Your task to perform on an android device: toggle improve location accuracy Image 0: 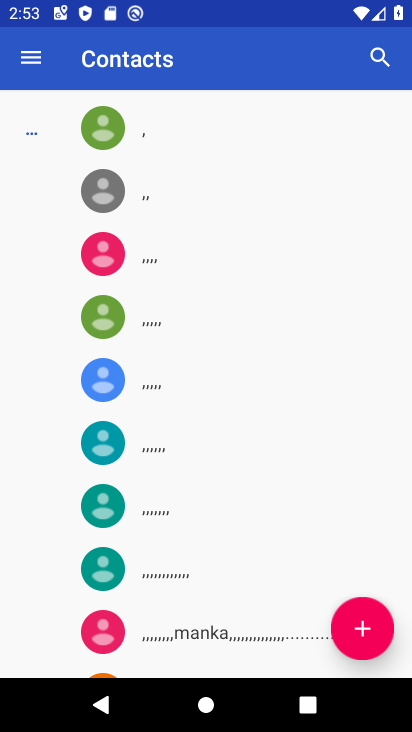
Step 0: press home button
Your task to perform on an android device: toggle improve location accuracy Image 1: 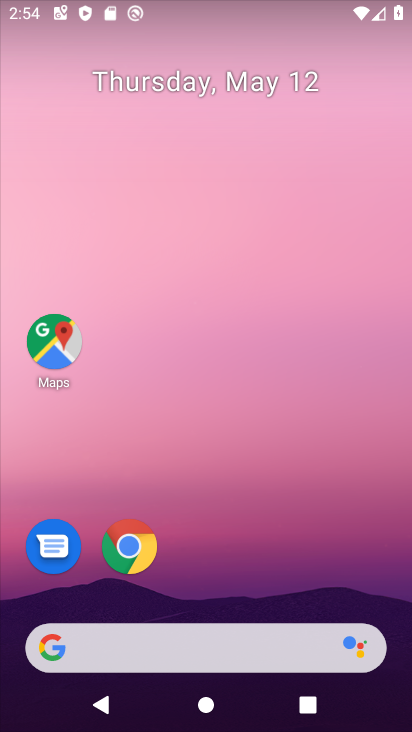
Step 1: drag from (234, 502) to (251, 222)
Your task to perform on an android device: toggle improve location accuracy Image 2: 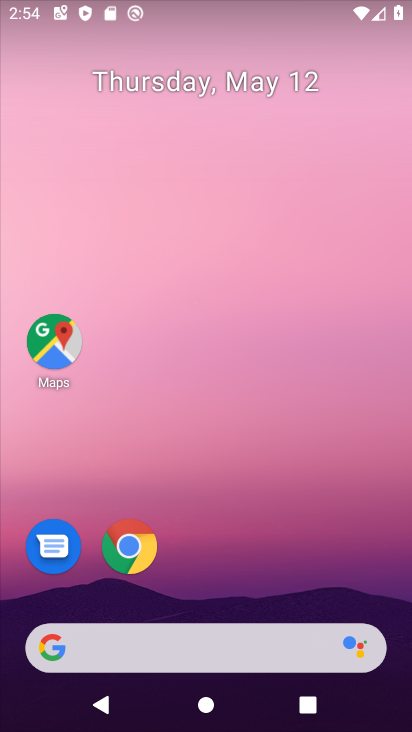
Step 2: drag from (250, 507) to (240, 275)
Your task to perform on an android device: toggle improve location accuracy Image 3: 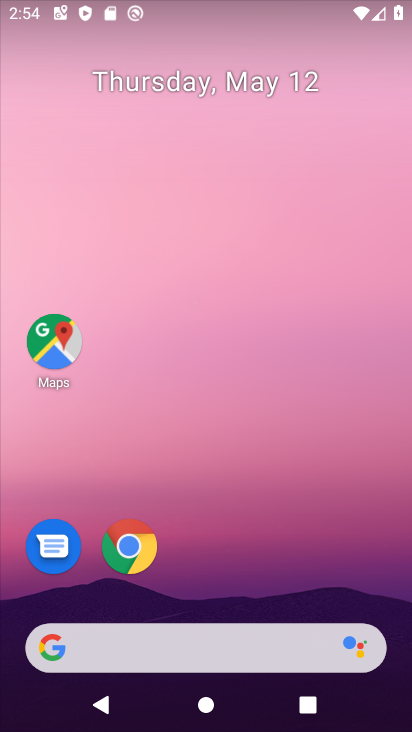
Step 3: drag from (237, 343) to (238, 243)
Your task to perform on an android device: toggle improve location accuracy Image 4: 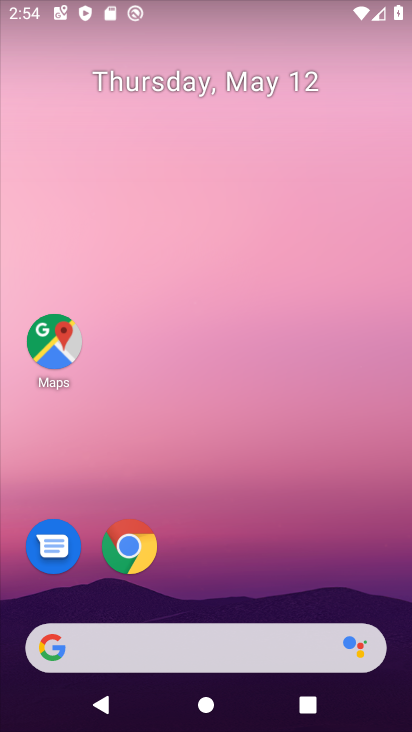
Step 4: drag from (218, 552) to (227, 246)
Your task to perform on an android device: toggle improve location accuracy Image 5: 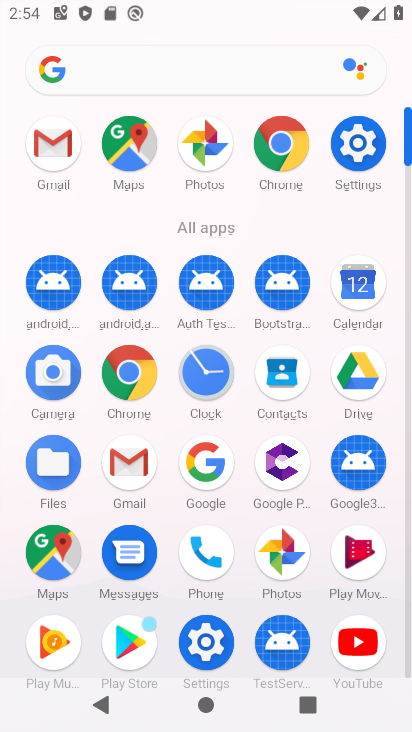
Step 5: click (348, 138)
Your task to perform on an android device: toggle improve location accuracy Image 6: 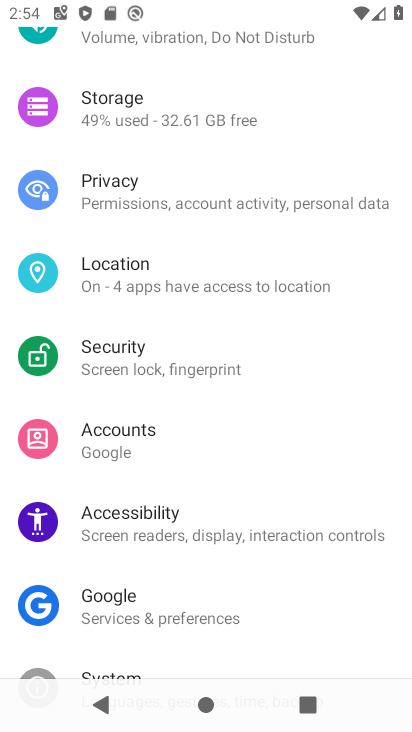
Step 6: click (168, 267)
Your task to perform on an android device: toggle improve location accuracy Image 7: 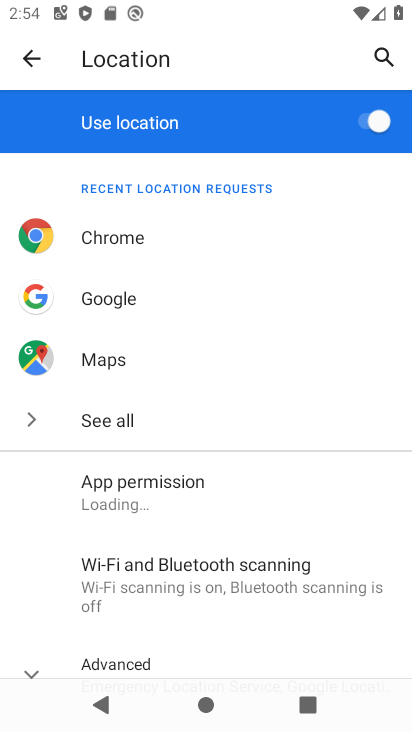
Step 7: drag from (285, 620) to (313, 287)
Your task to perform on an android device: toggle improve location accuracy Image 8: 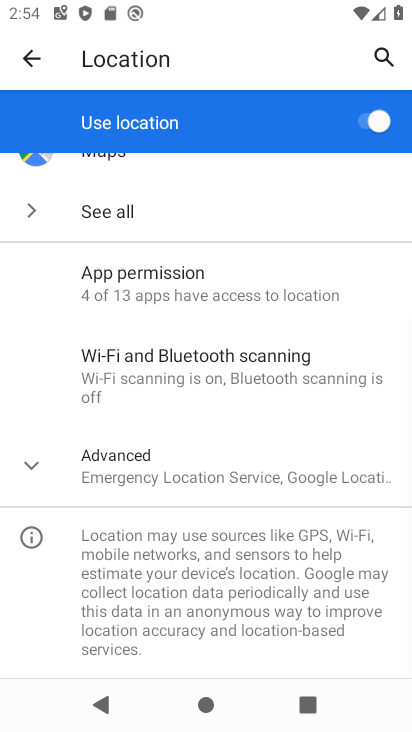
Step 8: click (140, 476)
Your task to perform on an android device: toggle improve location accuracy Image 9: 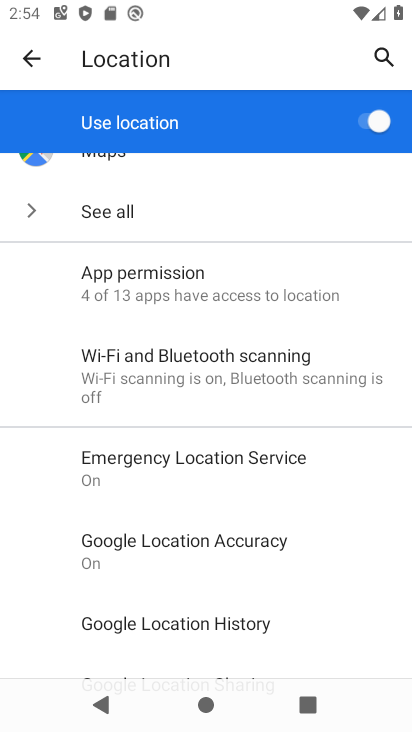
Step 9: click (185, 543)
Your task to perform on an android device: toggle improve location accuracy Image 10: 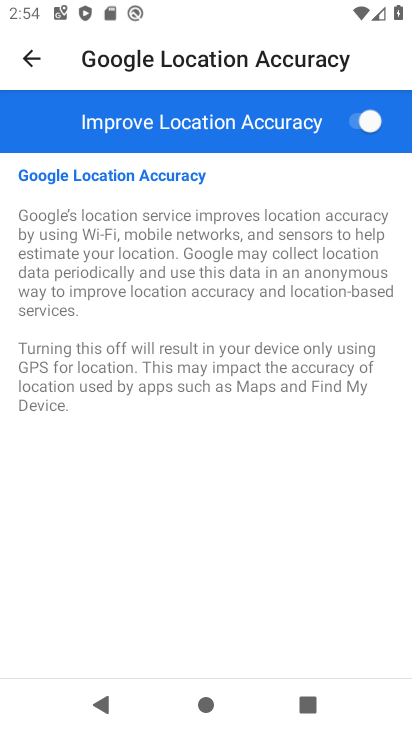
Step 10: click (370, 123)
Your task to perform on an android device: toggle improve location accuracy Image 11: 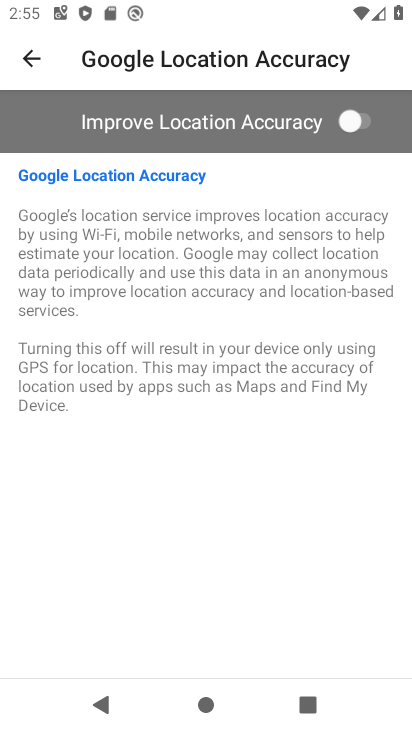
Step 11: task complete